Your task to perform on an android device: Open maps Image 0: 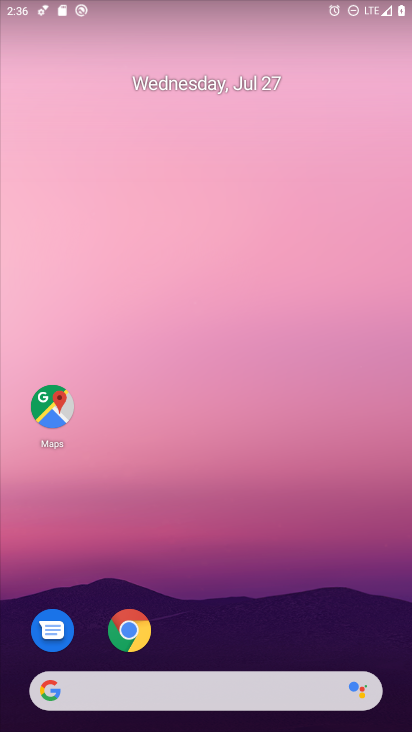
Step 0: click (54, 408)
Your task to perform on an android device: Open maps Image 1: 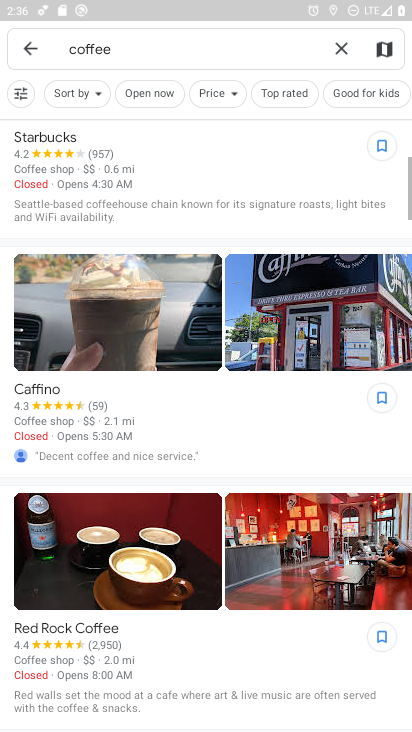
Step 1: click (342, 45)
Your task to perform on an android device: Open maps Image 2: 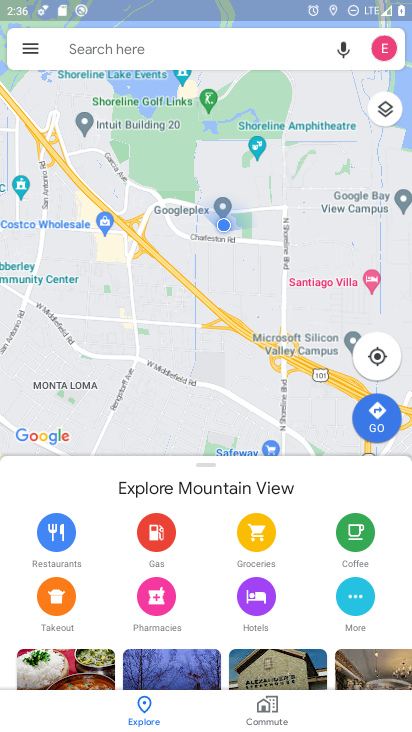
Step 2: task complete